Your task to perform on an android device: toggle javascript in the chrome app Image 0: 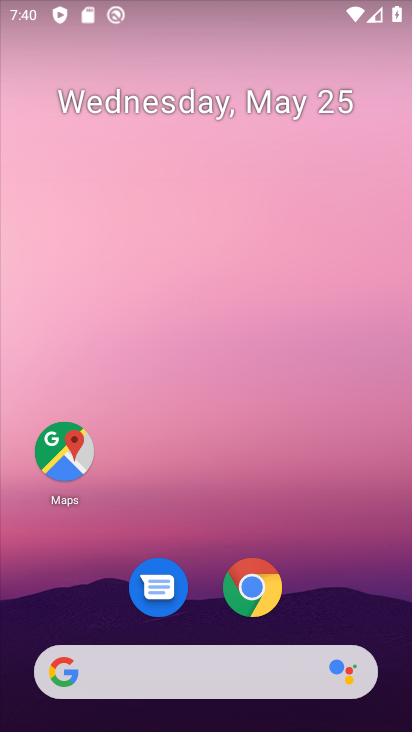
Step 0: click (247, 589)
Your task to perform on an android device: toggle javascript in the chrome app Image 1: 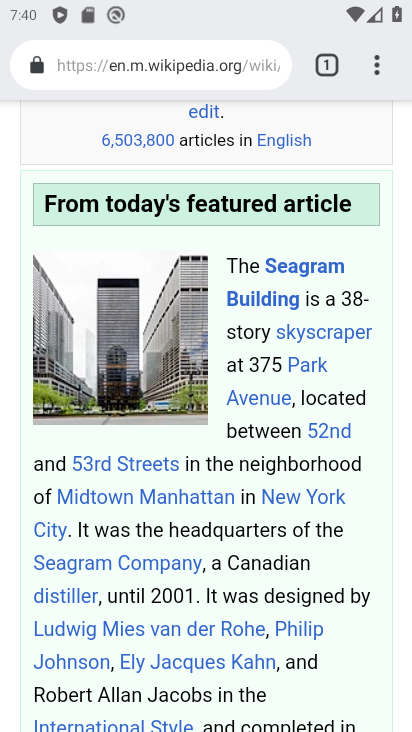
Step 1: drag from (380, 65) to (152, 638)
Your task to perform on an android device: toggle javascript in the chrome app Image 2: 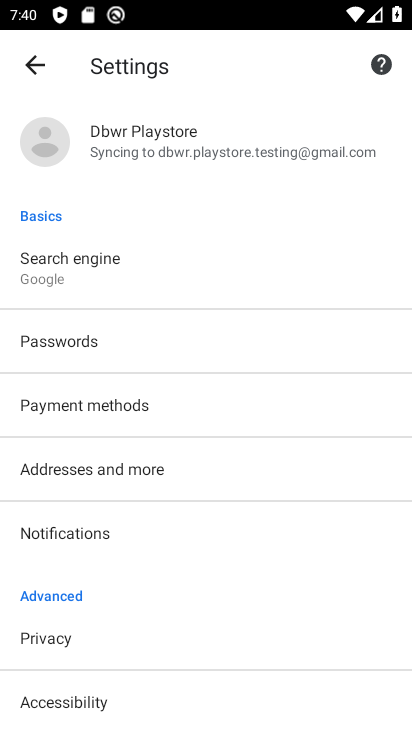
Step 2: drag from (222, 644) to (237, 244)
Your task to perform on an android device: toggle javascript in the chrome app Image 3: 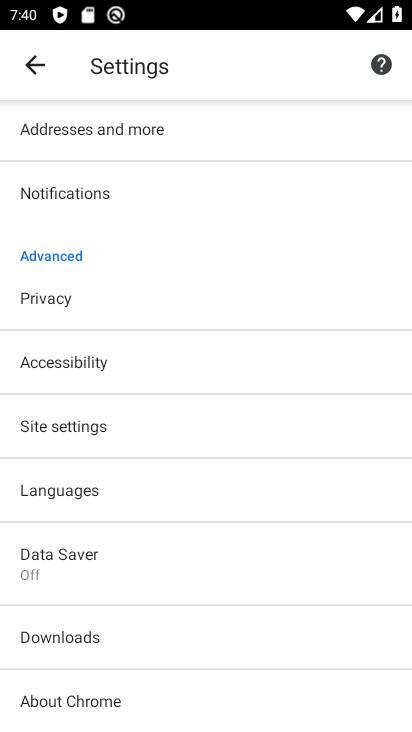
Step 3: click (54, 431)
Your task to perform on an android device: toggle javascript in the chrome app Image 4: 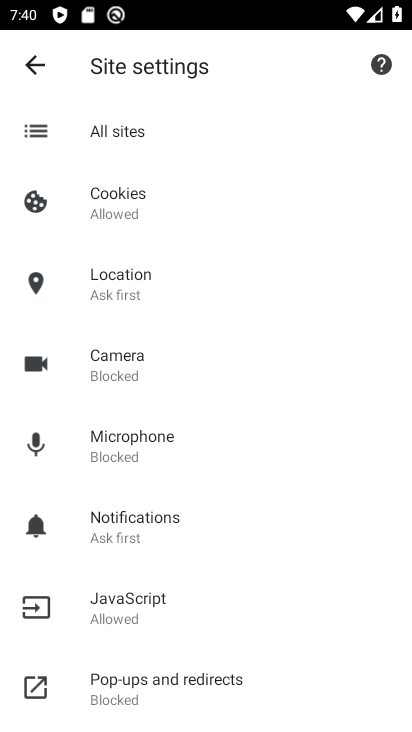
Step 4: click (136, 602)
Your task to perform on an android device: toggle javascript in the chrome app Image 5: 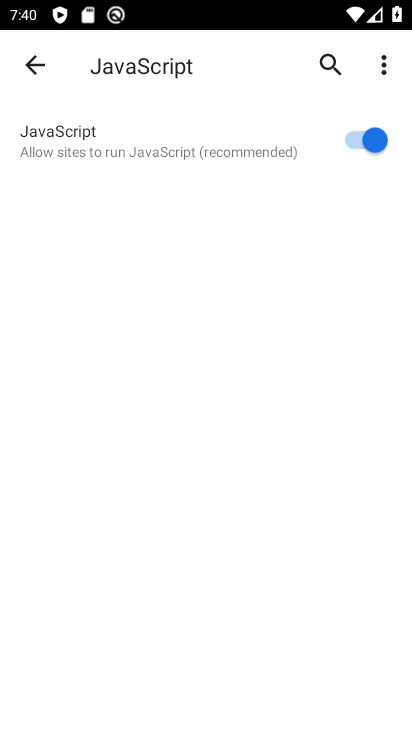
Step 5: click (355, 133)
Your task to perform on an android device: toggle javascript in the chrome app Image 6: 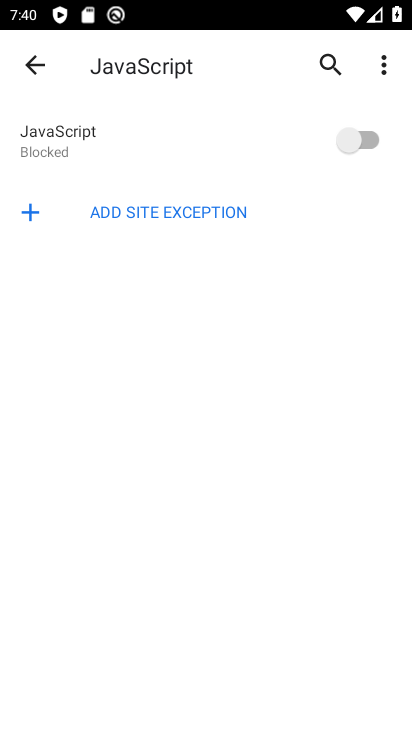
Step 6: task complete